Your task to perform on an android device: Do I have any events tomorrow? Image 0: 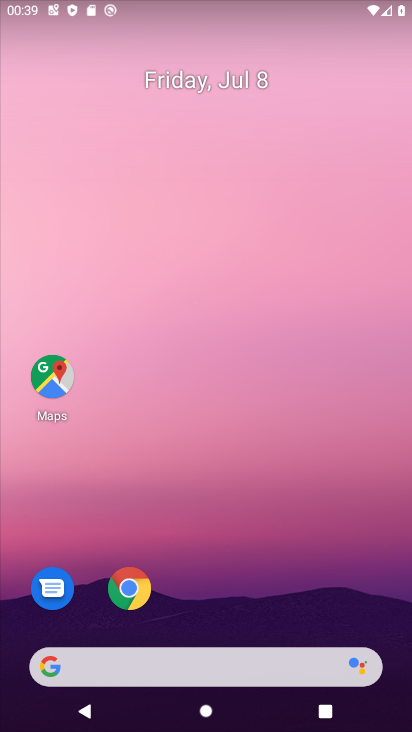
Step 0: drag from (212, 587) to (258, 40)
Your task to perform on an android device: Do I have any events tomorrow? Image 1: 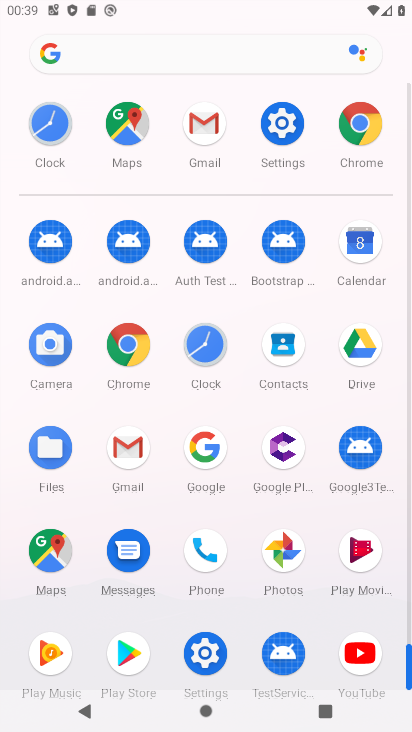
Step 1: drag from (194, 615) to (200, 308)
Your task to perform on an android device: Do I have any events tomorrow? Image 2: 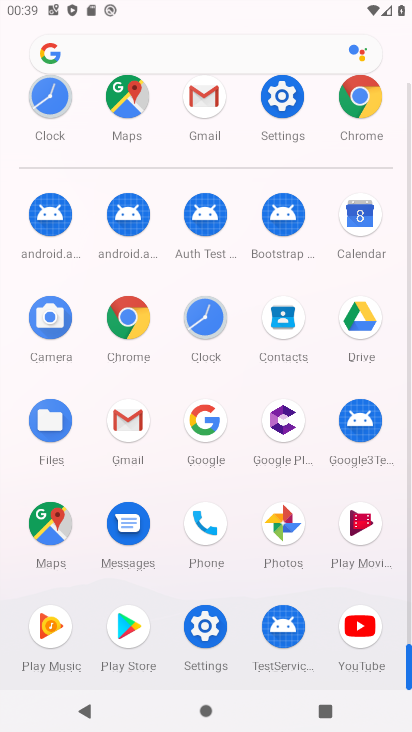
Step 2: click (365, 215)
Your task to perform on an android device: Do I have any events tomorrow? Image 3: 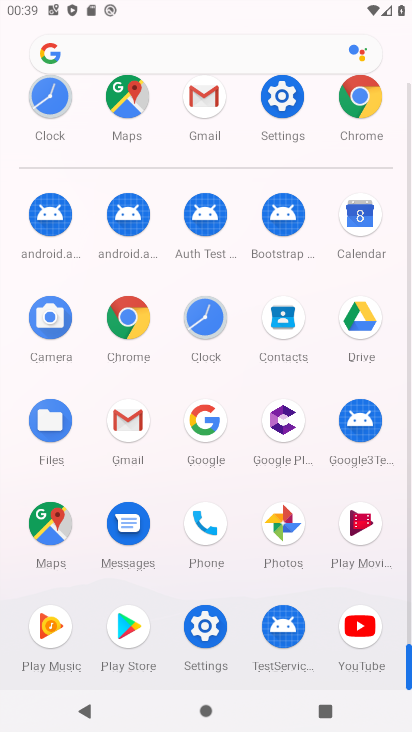
Step 3: click (365, 215)
Your task to perform on an android device: Do I have any events tomorrow? Image 4: 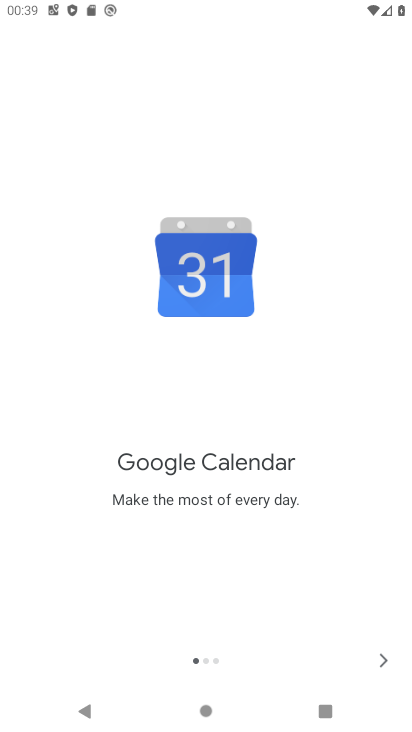
Step 4: click (384, 666)
Your task to perform on an android device: Do I have any events tomorrow? Image 5: 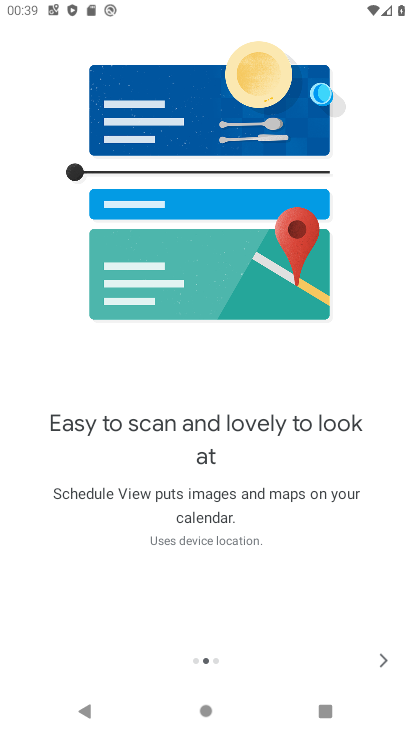
Step 5: click (384, 666)
Your task to perform on an android device: Do I have any events tomorrow? Image 6: 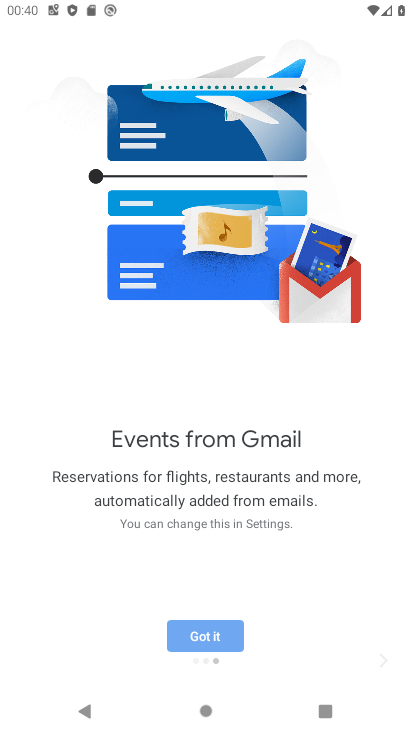
Step 6: click (384, 666)
Your task to perform on an android device: Do I have any events tomorrow? Image 7: 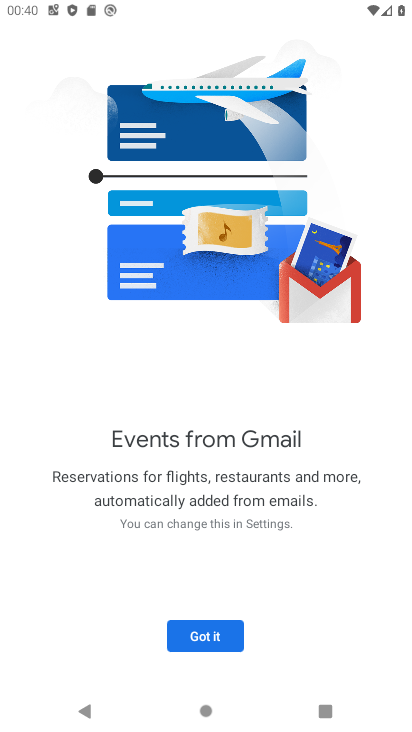
Step 7: click (165, 634)
Your task to perform on an android device: Do I have any events tomorrow? Image 8: 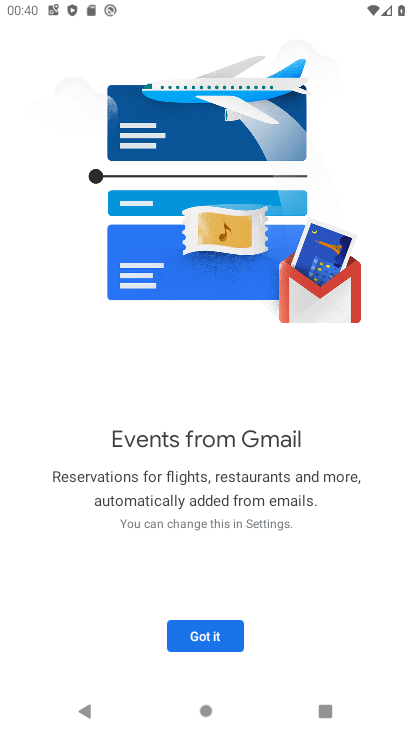
Step 8: click (209, 630)
Your task to perform on an android device: Do I have any events tomorrow? Image 9: 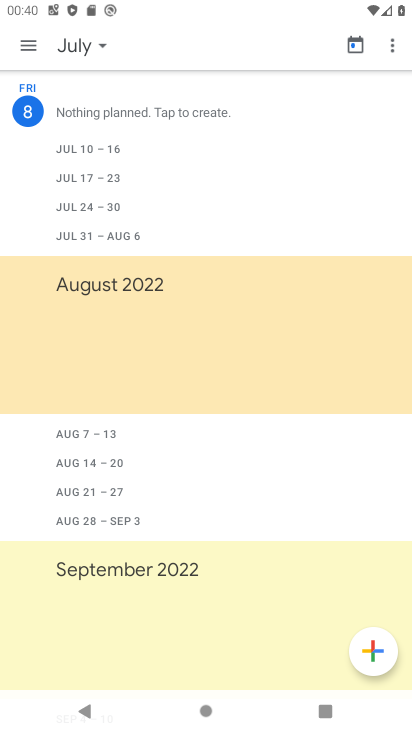
Step 9: click (400, 42)
Your task to perform on an android device: Do I have any events tomorrow? Image 10: 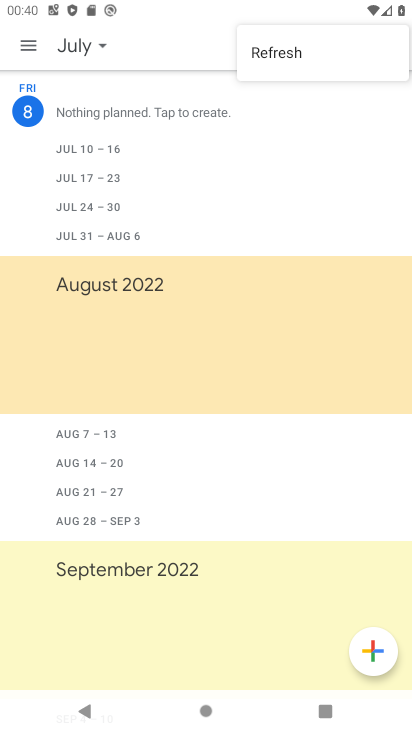
Step 10: click (165, 43)
Your task to perform on an android device: Do I have any events tomorrow? Image 11: 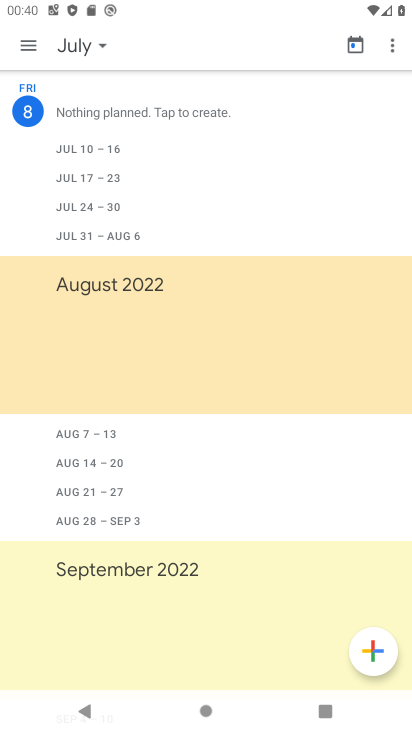
Step 11: click (89, 45)
Your task to perform on an android device: Do I have any events tomorrow? Image 12: 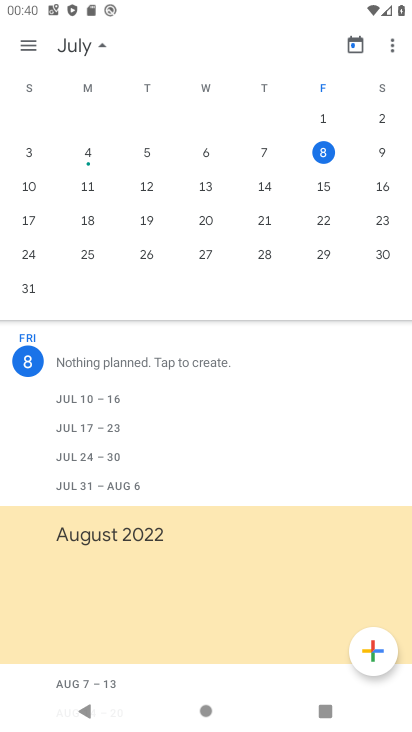
Step 12: click (385, 154)
Your task to perform on an android device: Do I have any events tomorrow? Image 13: 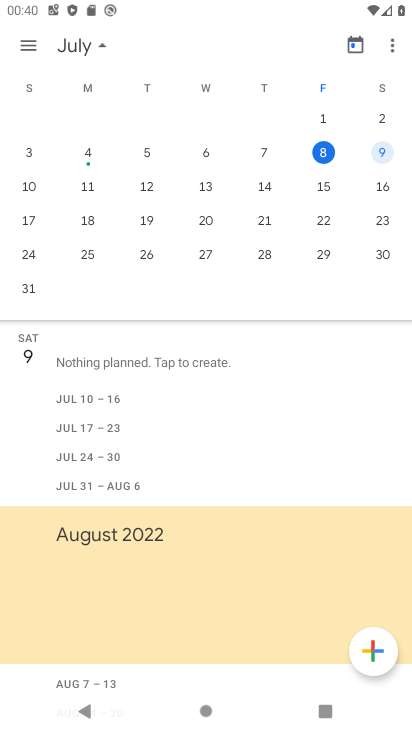
Step 13: task complete